Your task to perform on an android device: change your default location settings in chrome Image 0: 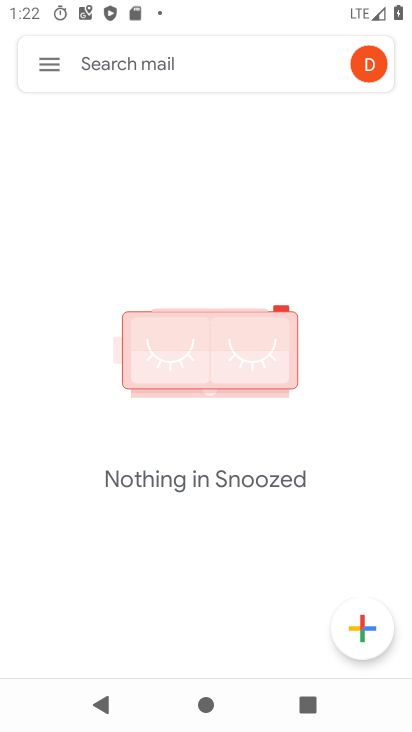
Step 0: click (302, 393)
Your task to perform on an android device: change your default location settings in chrome Image 1: 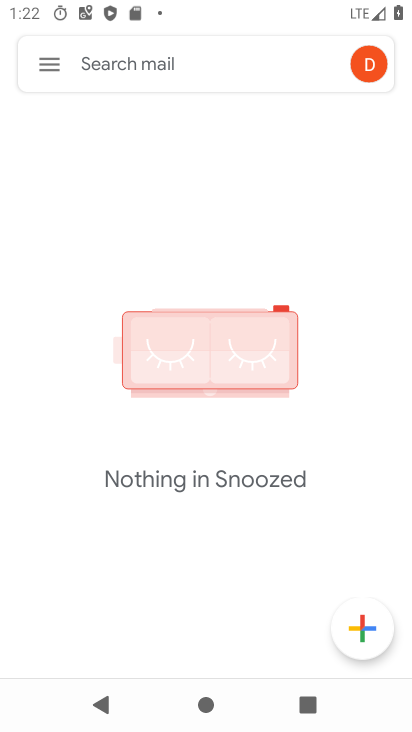
Step 1: press home button
Your task to perform on an android device: change your default location settings in chrome Image 2: 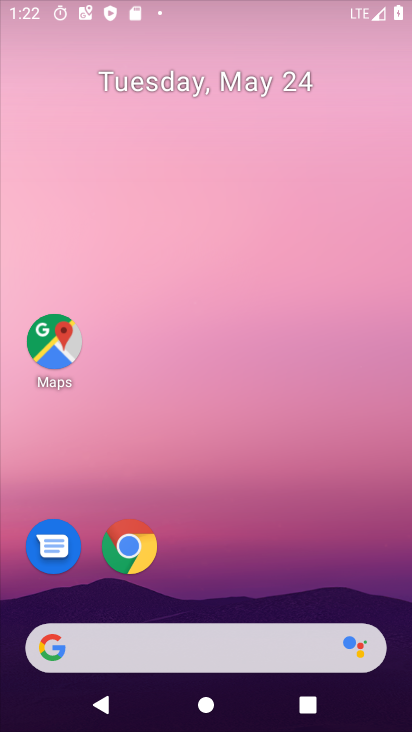
Step 2: drag from (210, 584) to (270, 21)
Your task to perform on an android device: change your default location settings in chrome Image 3: 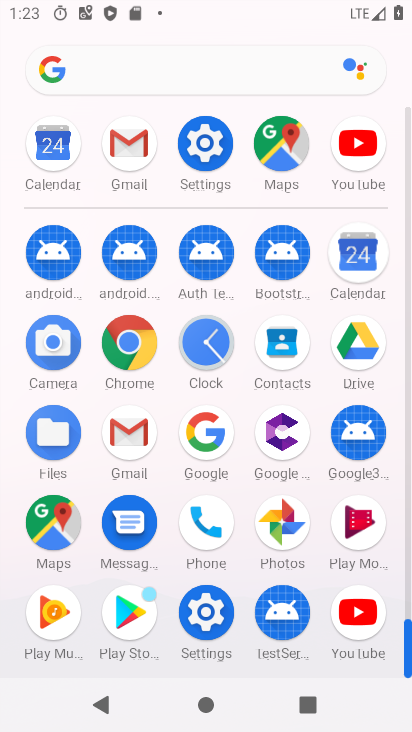
Step 3: click (123, 337)
Your task to perform on an android device: change your default location settings in chrome Image 4: 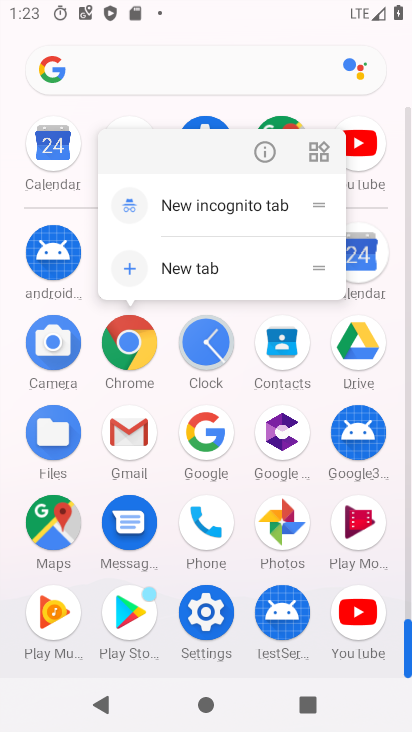
Step 4: click (264, 141)
Your task to perform on an android device: change your default location settings in chrome Image 5: 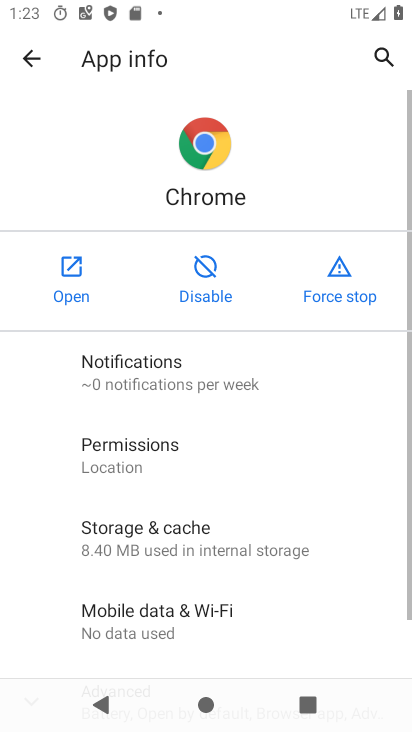
Step 5: click (76, 257)
Your task to perform on an android device: change your default location settings in chrome Image 6: 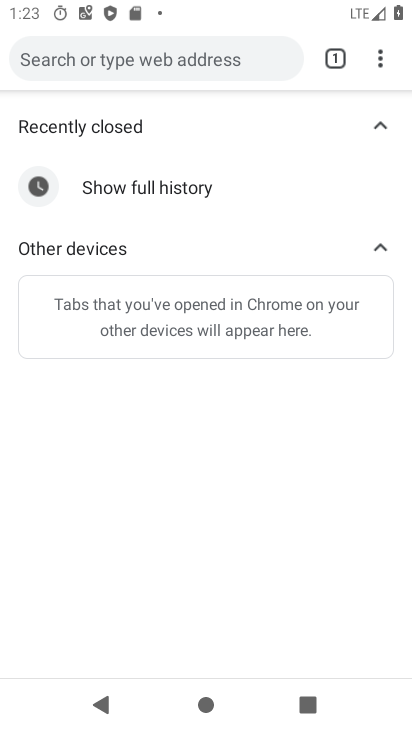
Step 6: click (377, 51)
Your task to perform on an android device: change your default location settings in chrome Image 7: 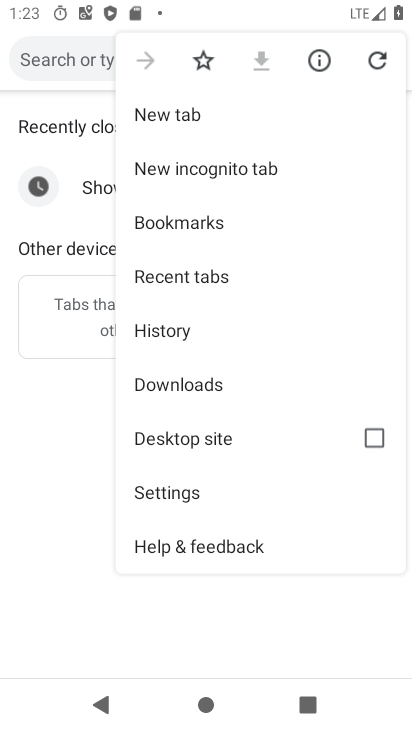
Step 7: click (188, 498)
Your task to perform on an android device: change your default location settings in chrome Image 8: 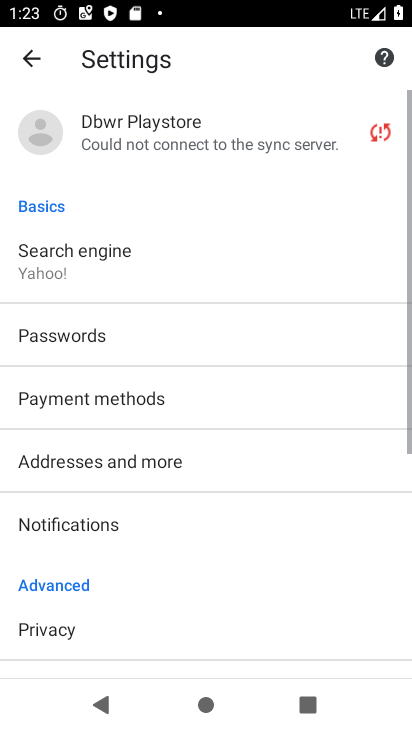
Step 8: drag from (201, 462) to (238, 172)
Your task to perform on an android device: change your default location settings in chrome Image 9: 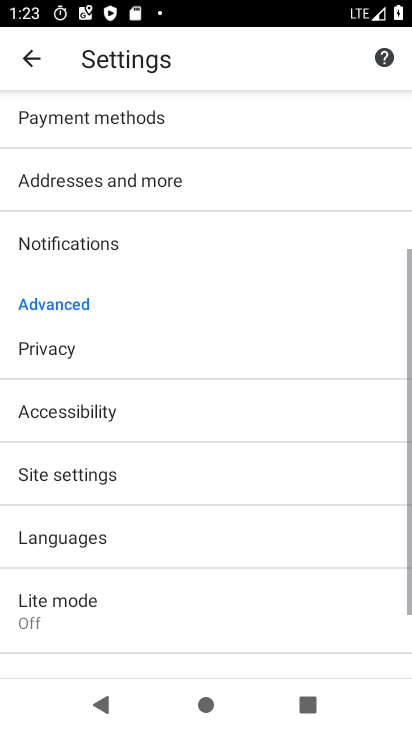
Step 9: drag from (203, 542) to (272, 197)
Your task to perform on an android device: change your default location settings in chrome Image 10: 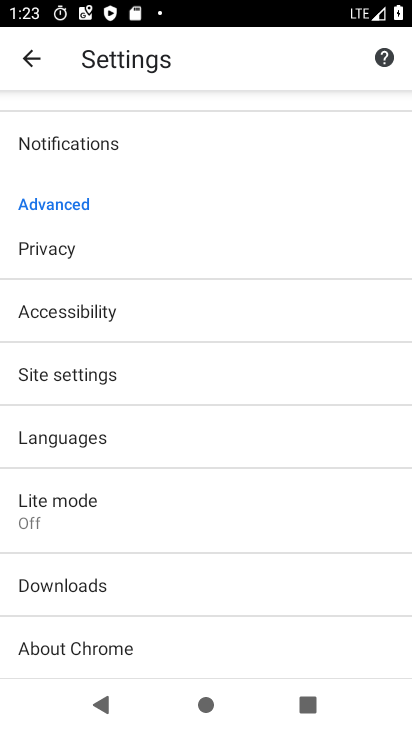
Step 10: click (131, 377)
Your task to perform on an android device: change your default location settings in chrome Image 11: 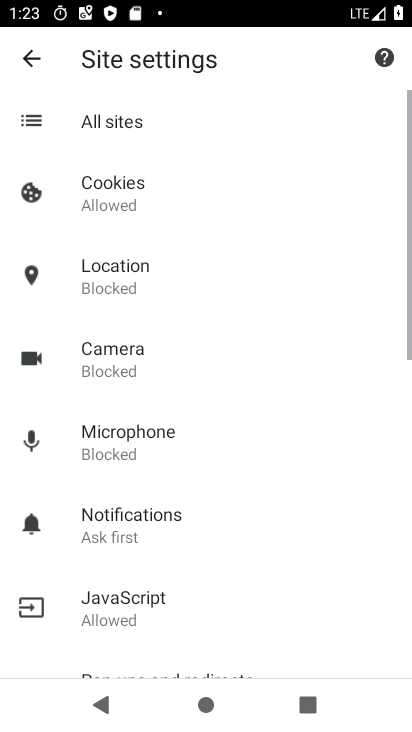
Step 11: click (156, 289)
Your task to perform on an android device: change your default location settings in chrome Image 12: 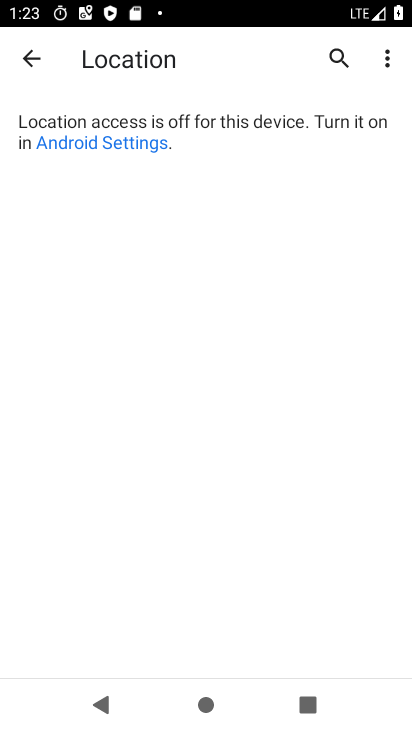
Step 12: drag from (157, 511) to (213, 276)
Your task to perform on an android device: change your default location settings in chrome Image 13: 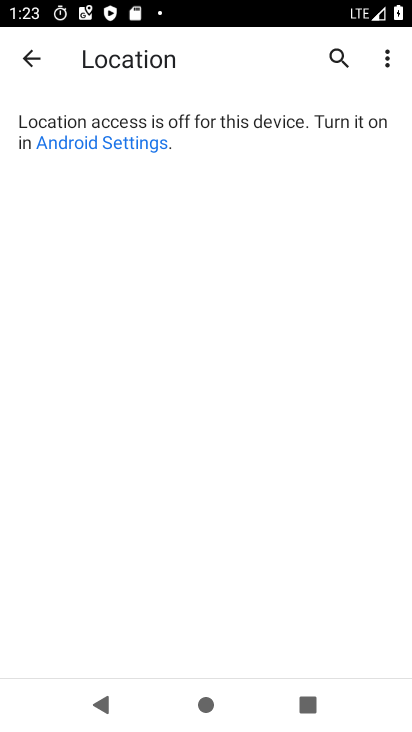
Step 13: drag from (219, 219) to (329, 564)
Your task to perform on an android device: change your default location settings in chrome Image 14: 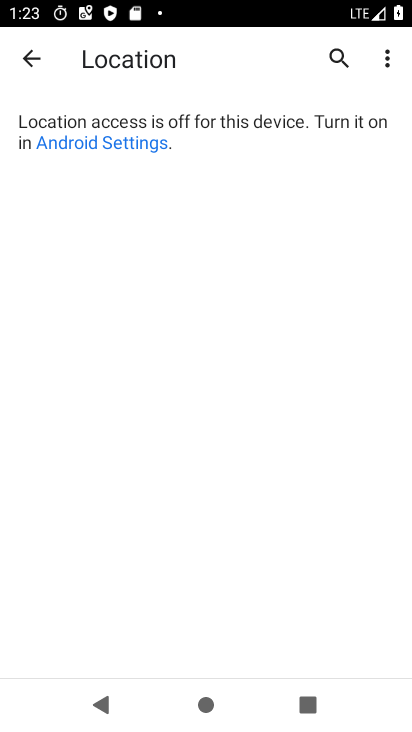
Step 14: click (247, 108)
Your task to perform on an android device: change your default location settings in chrome Image 15: 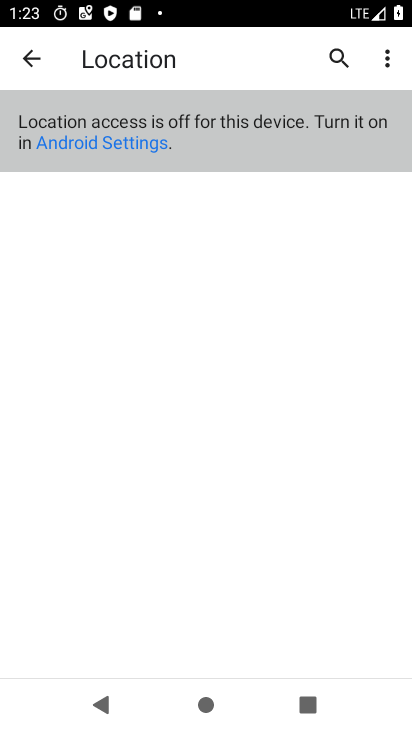
Step 15: click (247, 108)
Your task to perform on an android device: change your default location settings in chrome Image 16: 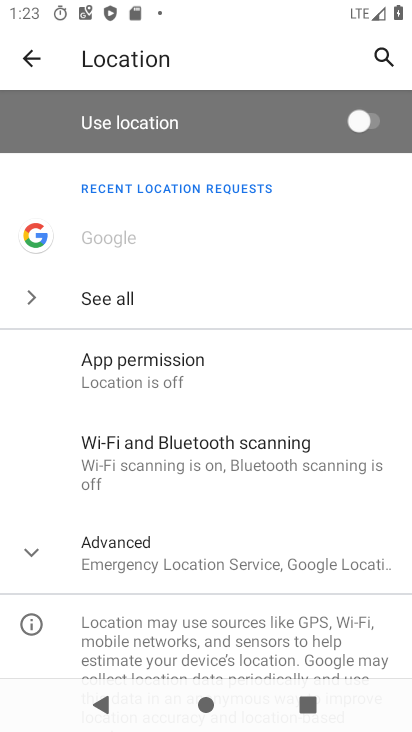
Step 16: click (24, 55)
Your task to perform on an android device: change your default location settings in chrome Image 17: 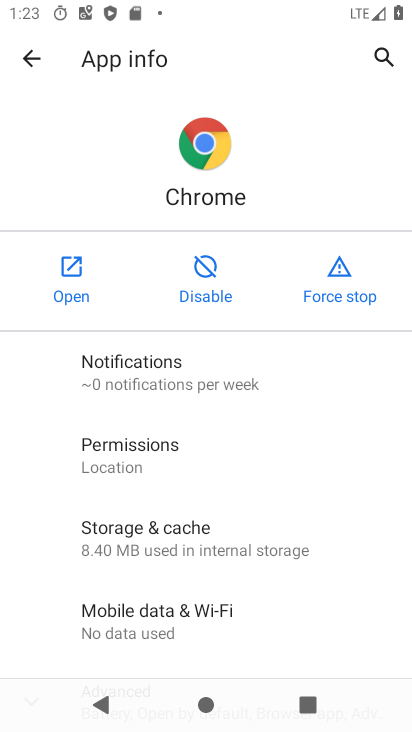
Step 17: task complete